Your task to perform on an android device: Search for sushi restaurants on Maps Image 0: 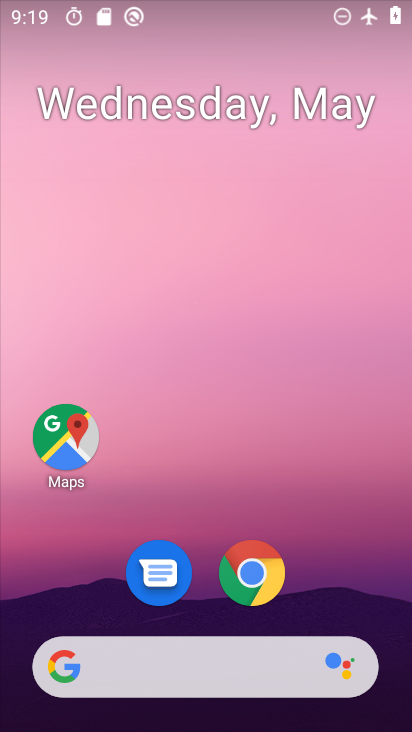
Step 0: click (77, 455)
Your task to perform on an android device: Search for sushi restaurants on Maps Image 1: 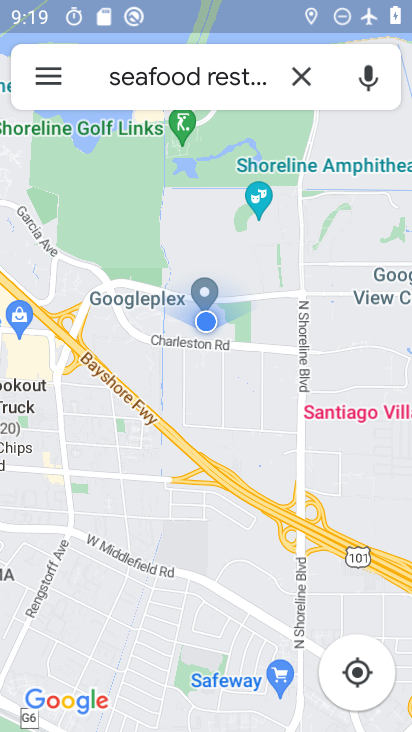
Step 1: click (134, 84)
Your task to perform on an android device: Search for sushi restaurants on Maps Image 2: 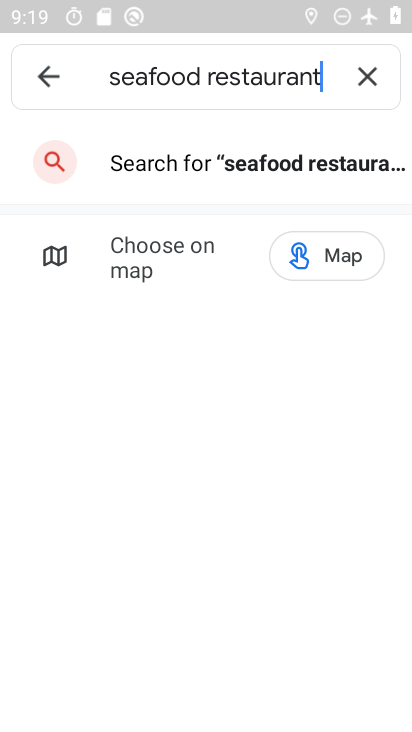
Step 2: click (308, 72)
Your task to perform on an android device: Search for sushi restaurants on Maps Image 3: 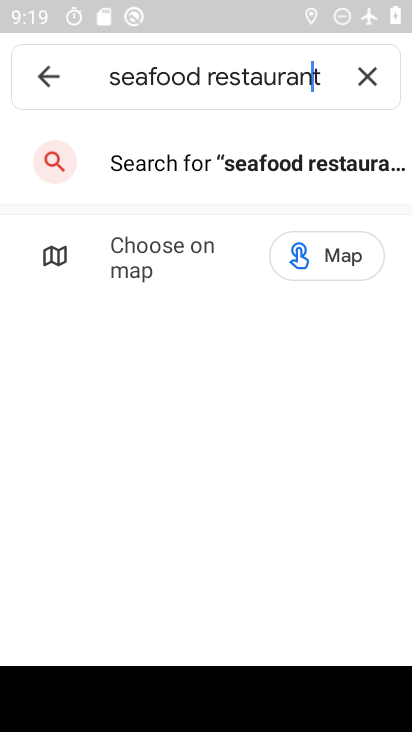
Step 3: click (313, 80)
Your task to perform on an android device: Search for sushi restaurants on Maps Image 4: 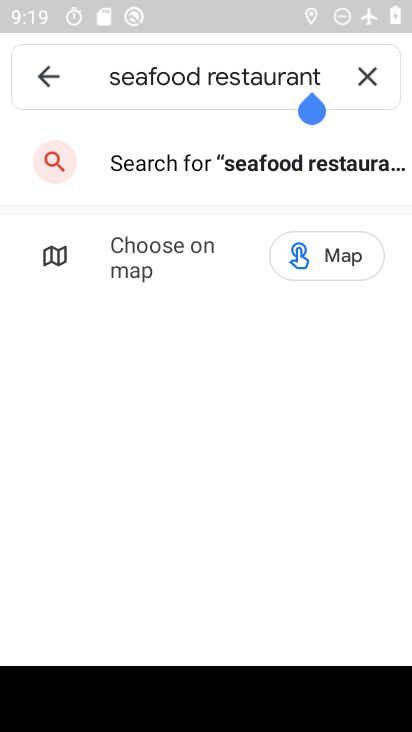
Step 4: click (373, 74)
Your task to perform on an android device: Search for sushi restaurants on Maps Image 5: 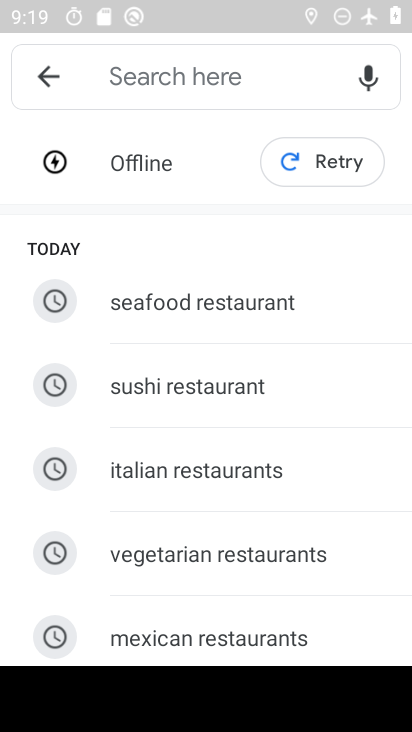
Step 5: type "sushi restaurants"
Your task to perform on an android device: Search for sushi restaurants on Maps Image 6: 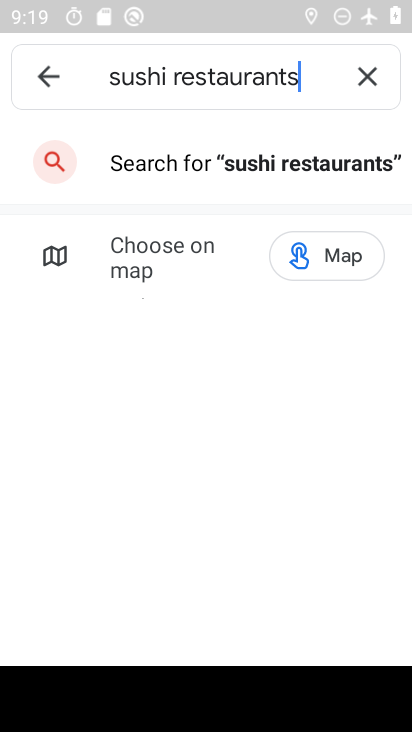
Step 6: click (206, 166)
Your task to perform on an android device: Search for sushi restaurants on Maps Image 7: 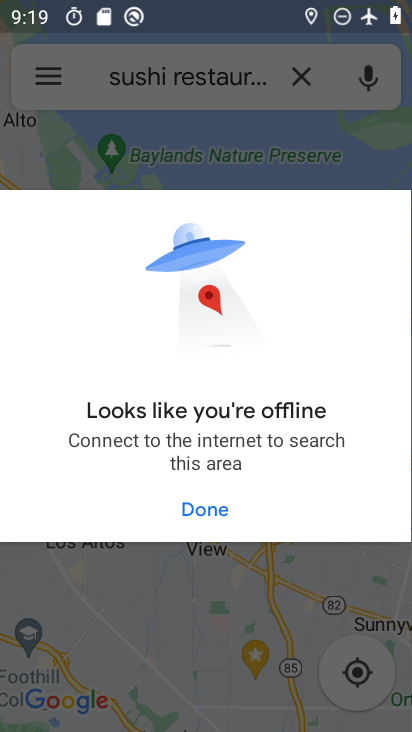
Step 7: task complete